Your task to perform on an android device: add a label to a message in the gmail app Image 0: 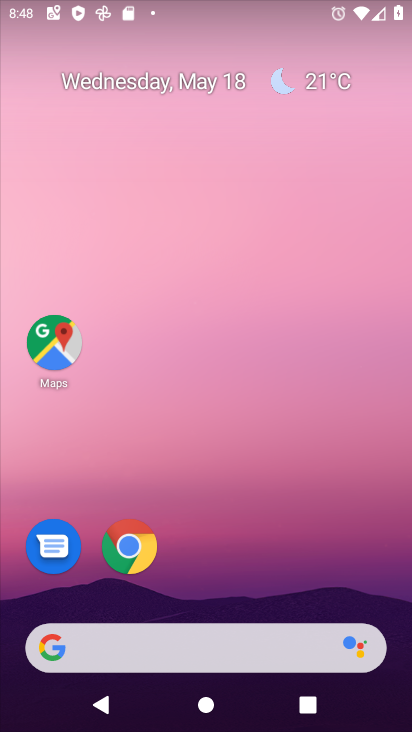
Step 0: drag from (391, 621) to (301, 108)
Your task to perform on an android device: add a label to a message in the gmail app Image 1: 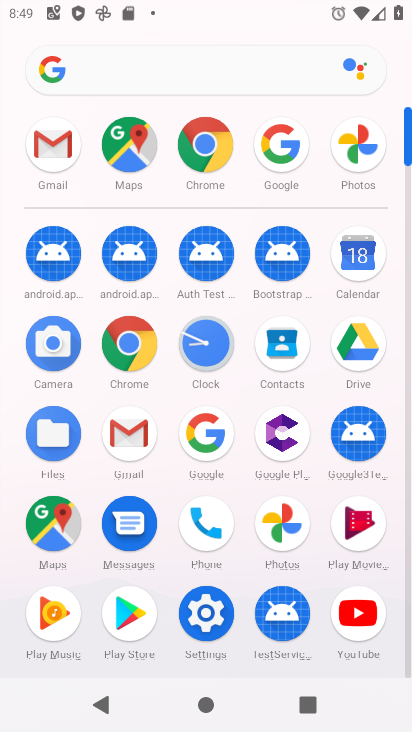
Step 1: click (119, 434)
Your task to perform on an android device: add a label to a message in the gmail app Image 2: 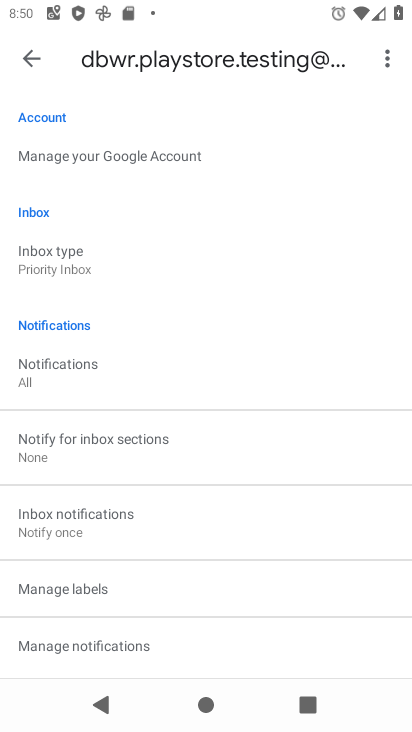
Step 2: task complete